Your task to perform on an android device: show emergency info Image 0: 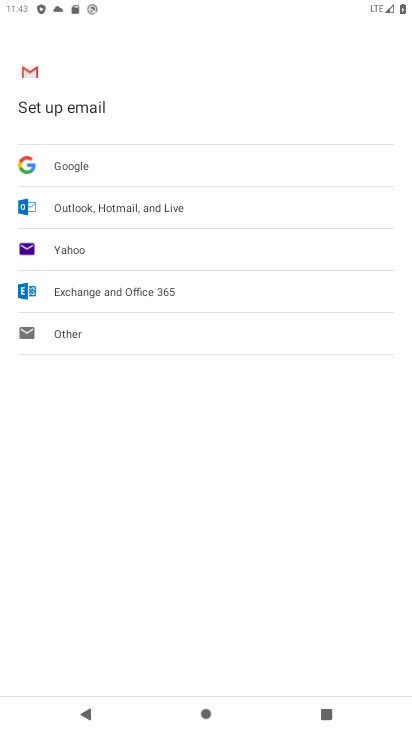
Step 0: press home button
Your task to perform on an android device: show emergency info Image 1: 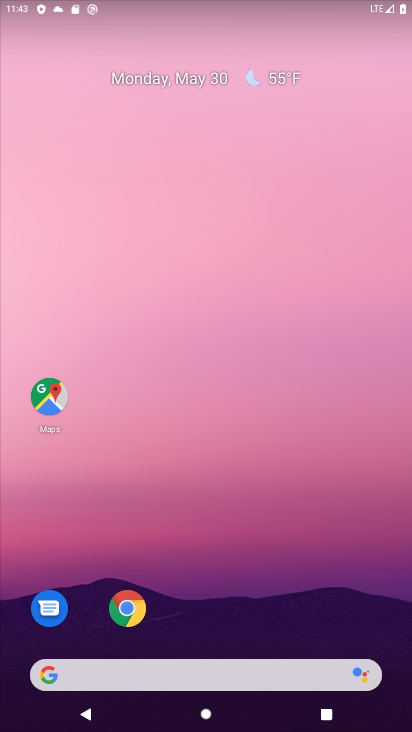
Step 1: drag from (246, 644) to (219, 0)
Your task to perform on an android device: show emergency info Image 2: 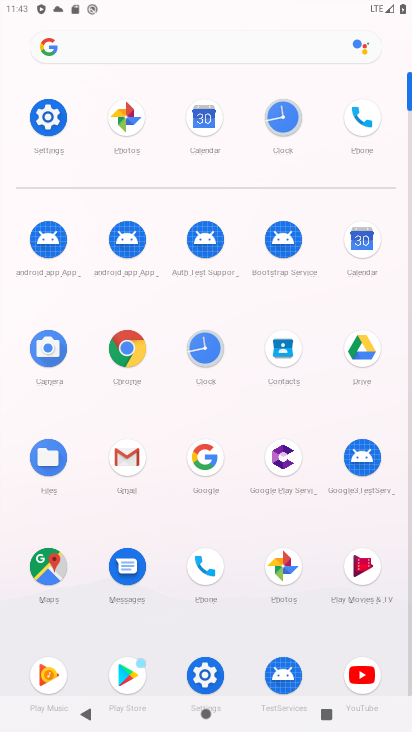
Step 2: click (42, 120)
Your task to perform on an android device: show emergency info Image 3: 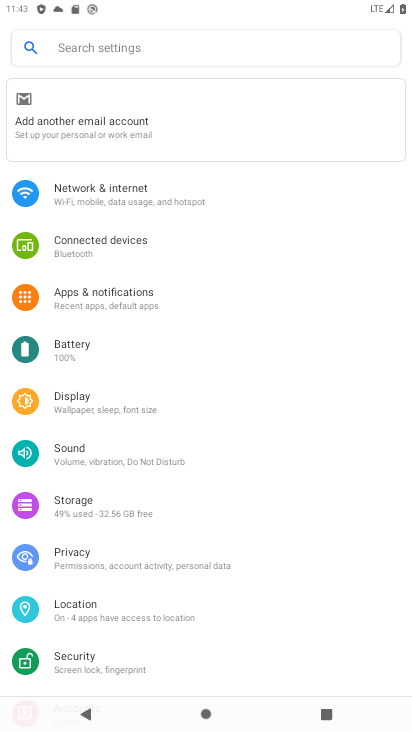
Step 3: drag from (252, 656) to (262, 51)
Your task to perform on an android device: show emergency info Image 4: 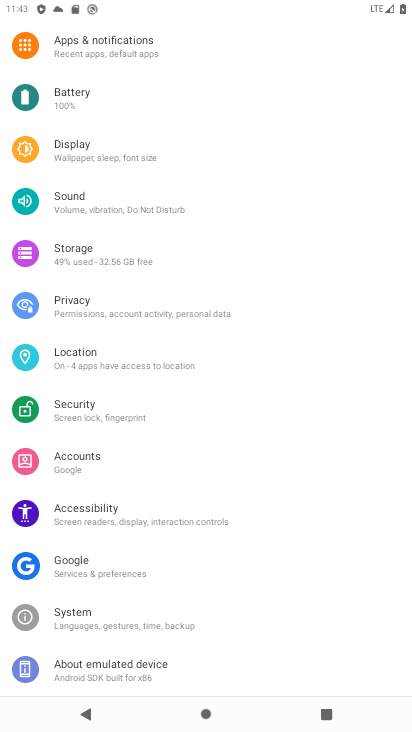
Step 4: click (97, 671)
Your task to perform on an android device: show emergency info Image 5: 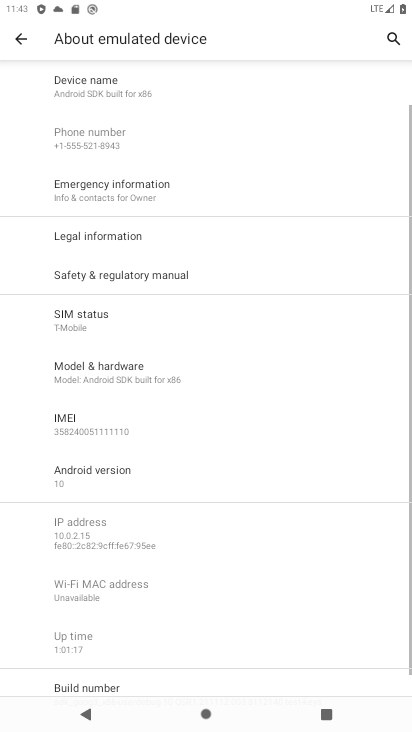
Step 5: click (109, 203)
Your task to perform on an android device: show emergency info Image 6: 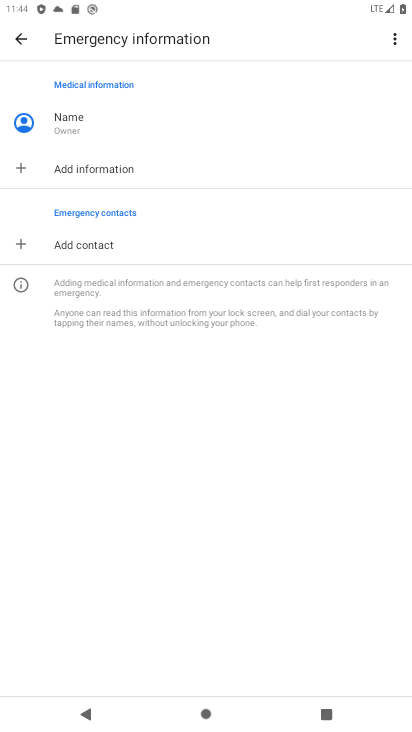
Step 6: task complete